Your task to perform on an android device: What's the weather going to be this weekend? Image 0: 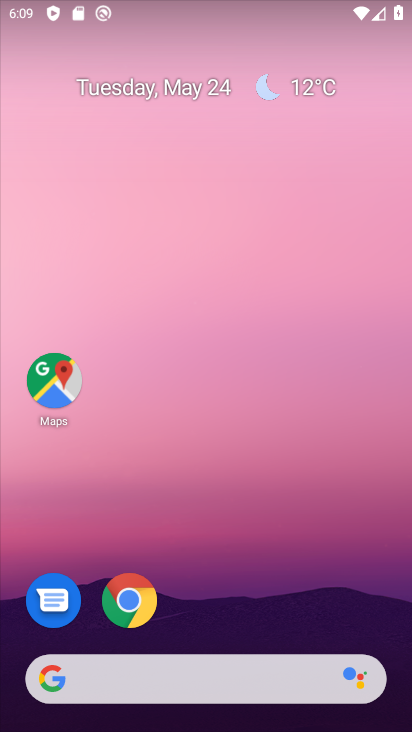
Step 0: drag from (83, 655) to (211, 57)
Your task to perform on an android device: What's the weather going to be this weekend? Image 1: 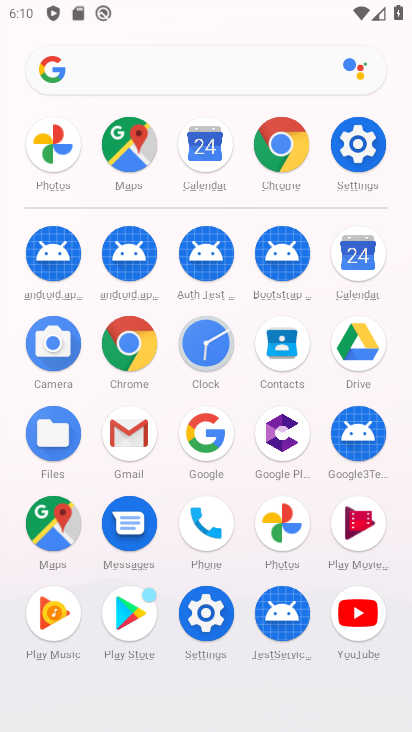
Step 1: click (338, 261)
Your task to perform on an android device: What's the weather going to be this weekend? Image 2: 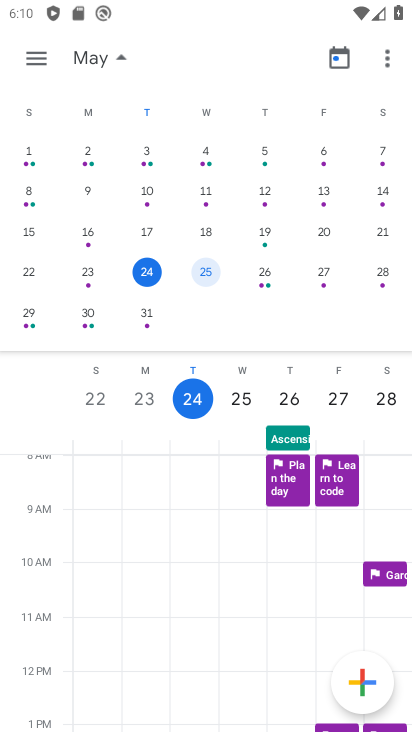
Step 2: press home button
Your task to perform on an android device: What's the weather going to be this weekend? Image 3: 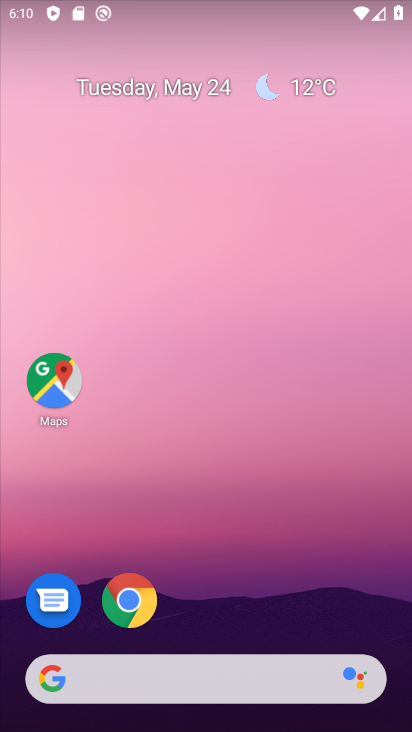
Step 3: drag from (14, 283) to (400, 257)
Your task to perform on an android device: What's the weather going to be this weekend? Image 4: 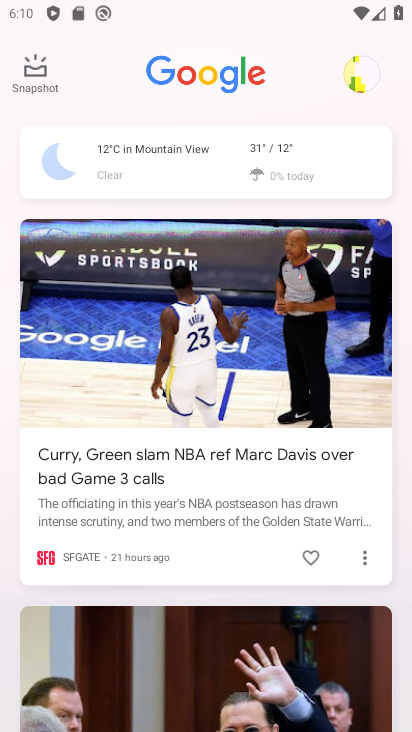
Step 4: click (256, 166)
Your task to perform on an android device: What's the weather going to be this weekend? Image 5: 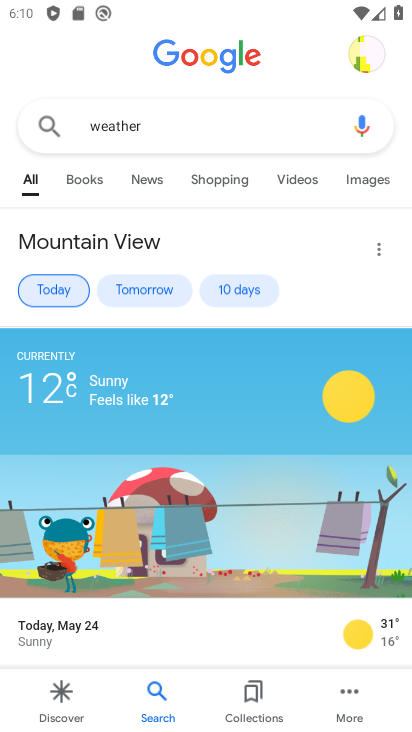
Step 5: click (256, 294)
Your task to perform on an android device: What's the weather going to be this weekend? Image 6: 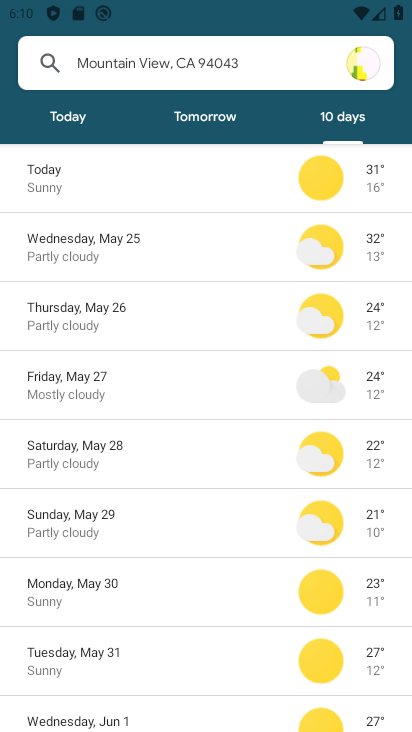
Step 6: task complete